Your task to perform on an android device: turn off improve location accuracy Image 0: 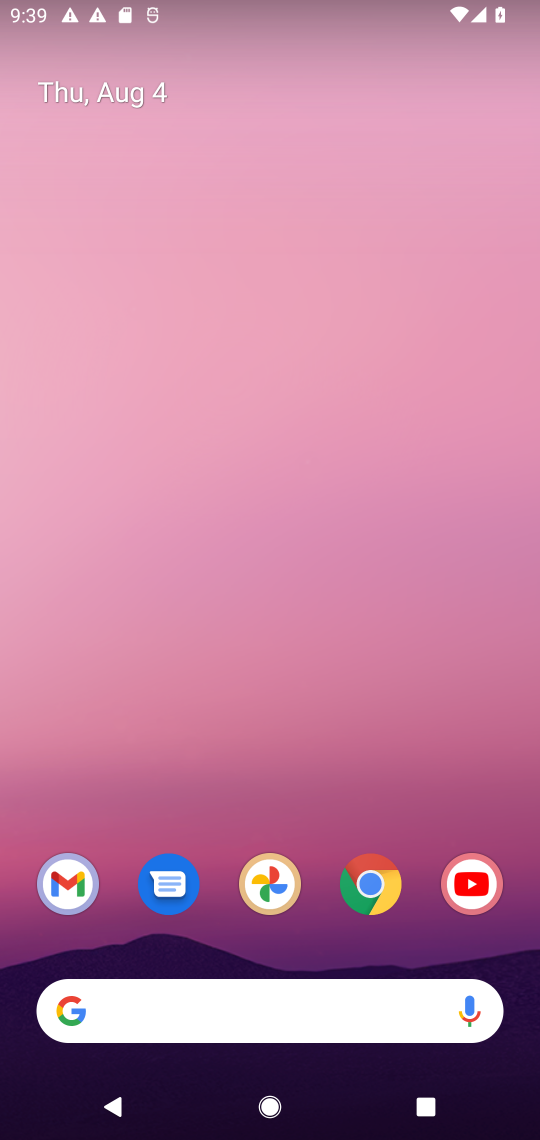
Step 0: drag from (242, 1059) to (116, 556)
Your task to perform on an android device: turn off improve location accuracy Image 1: 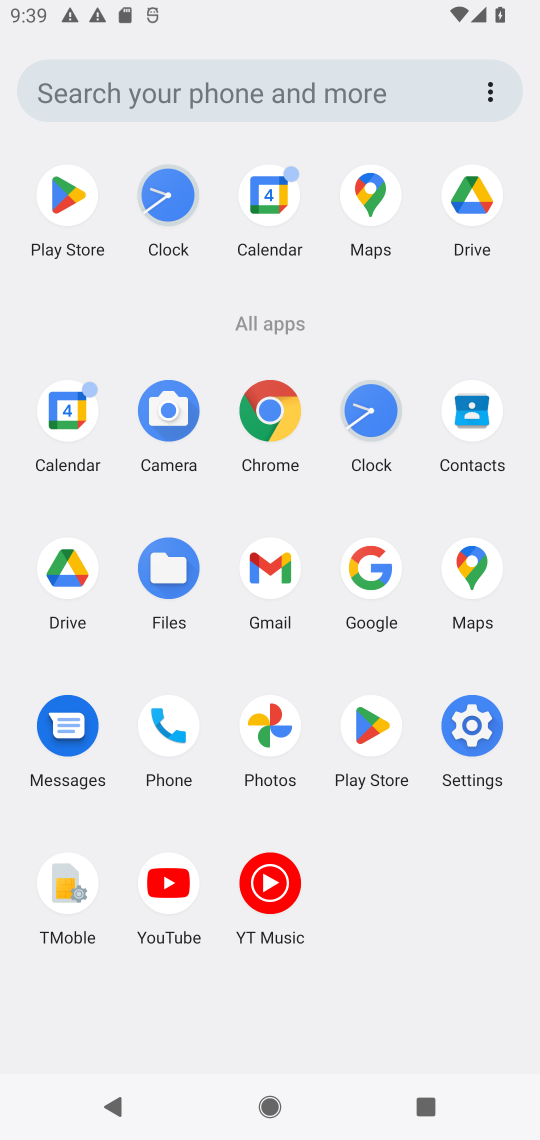
Step 1: click (461, 724)
Your task to perform on an android device: turn off improve location accuracy Image 2: 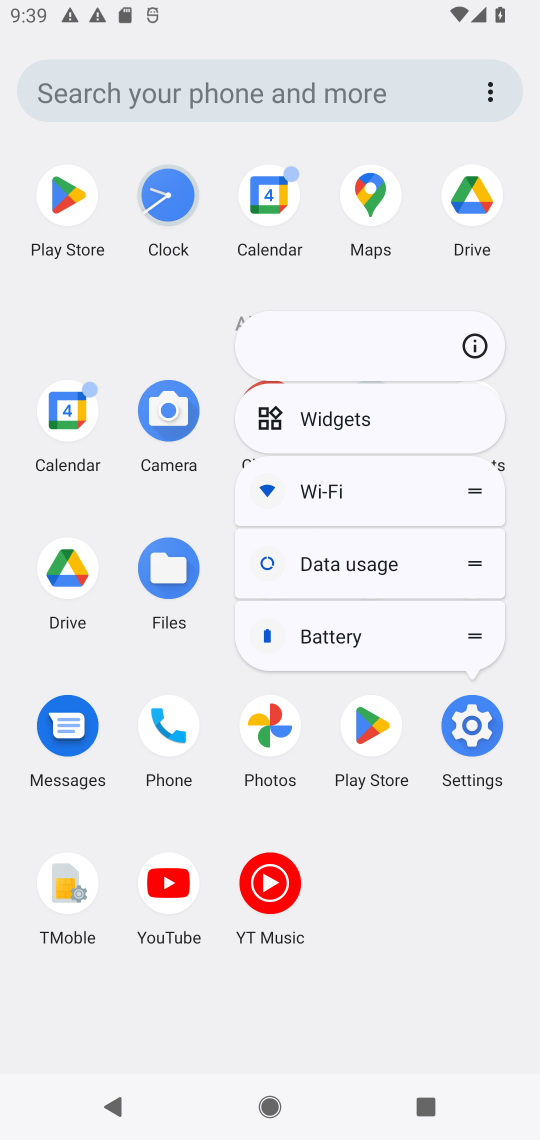
Step 2: click (459, 725)
Your task to perform on an android device: turn off improve location accuracy Image 3: 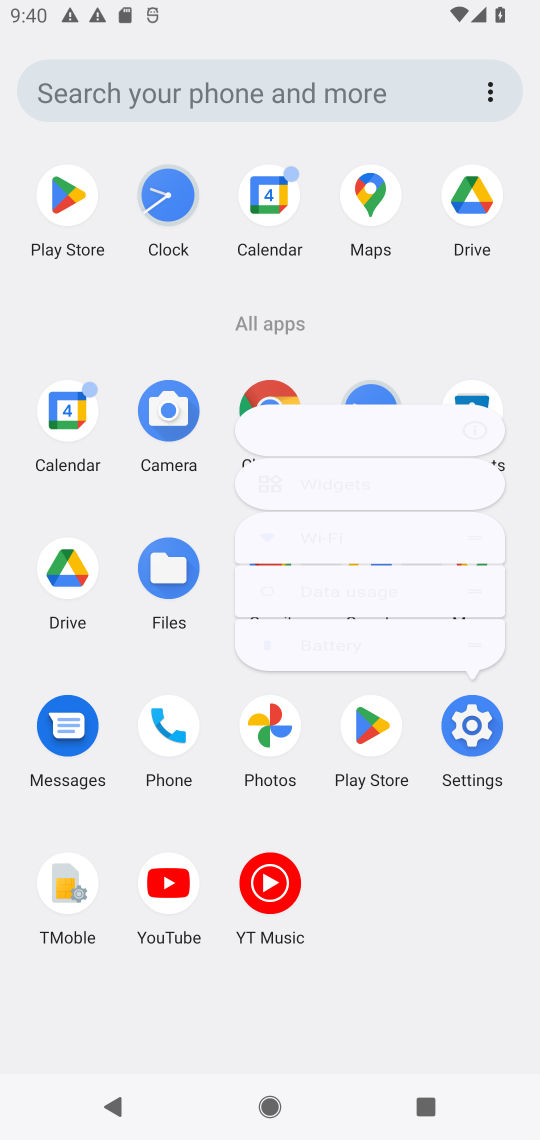
Step 3: click (464, 729)
Your task to perform on an android device: turn off improve location accuracy Image 4: 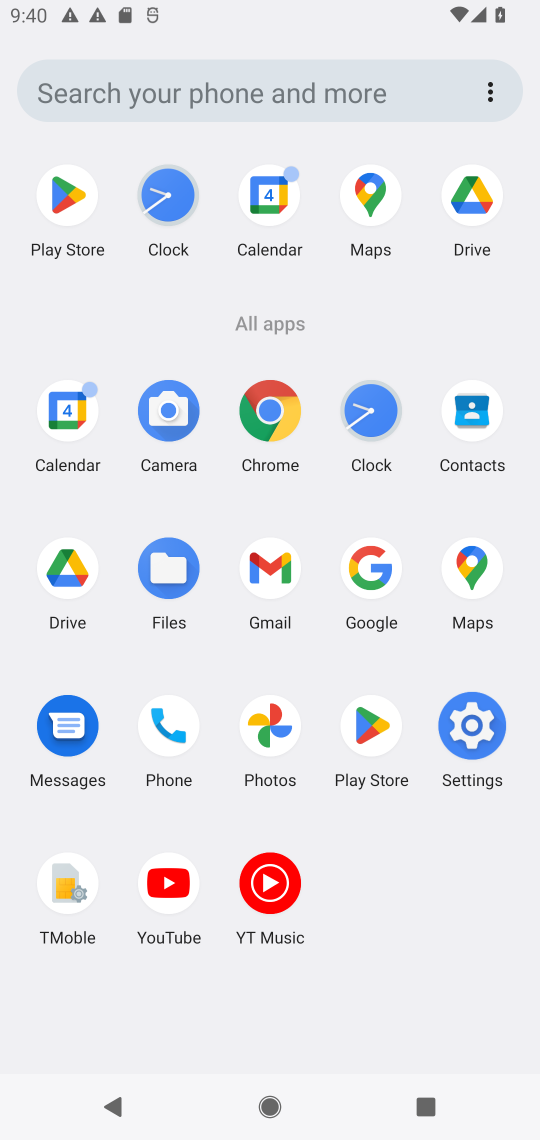
Step 4: click (469, 731)
Your task to perform on an android device: turn off improve location accuracy Image 5: 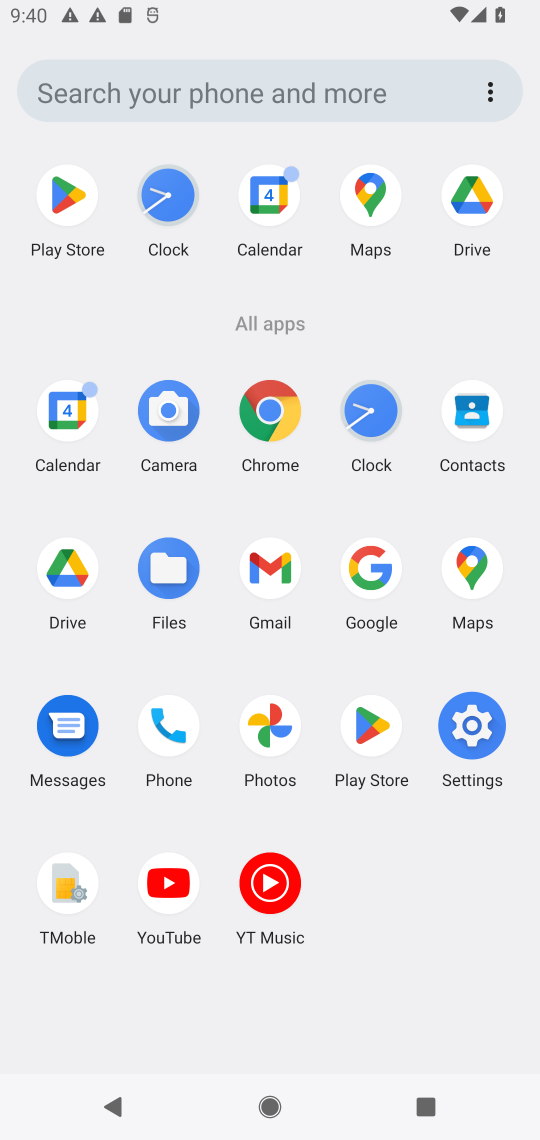
Step 5: click (470, 735)
Your task to perform on an android device: turn off improve location accuracy Image 6: 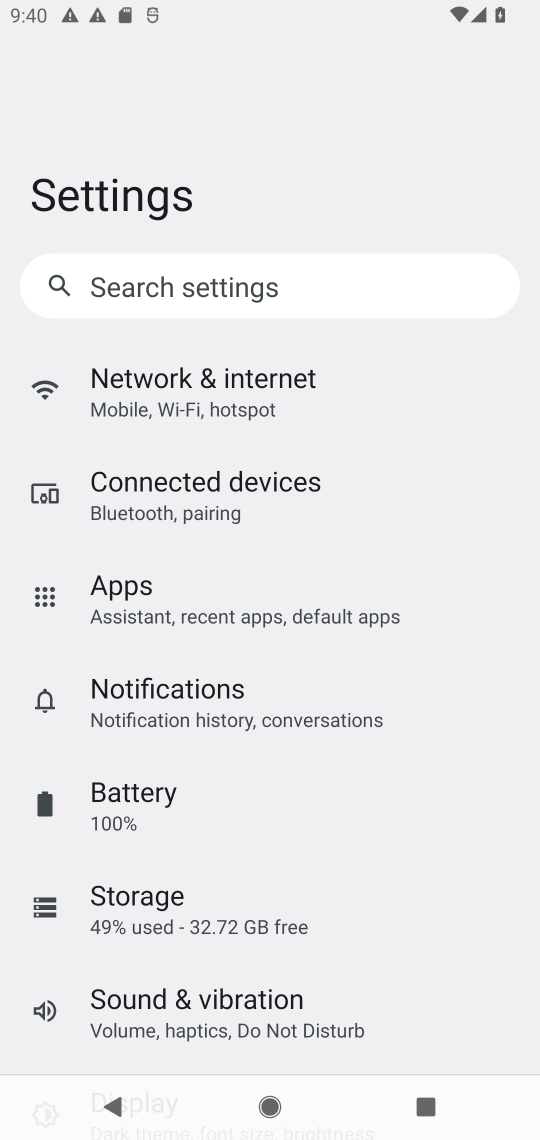
Step 6: click (461, 739)
Your task to perform on an android device: turn off improve location accuracy Image 7: 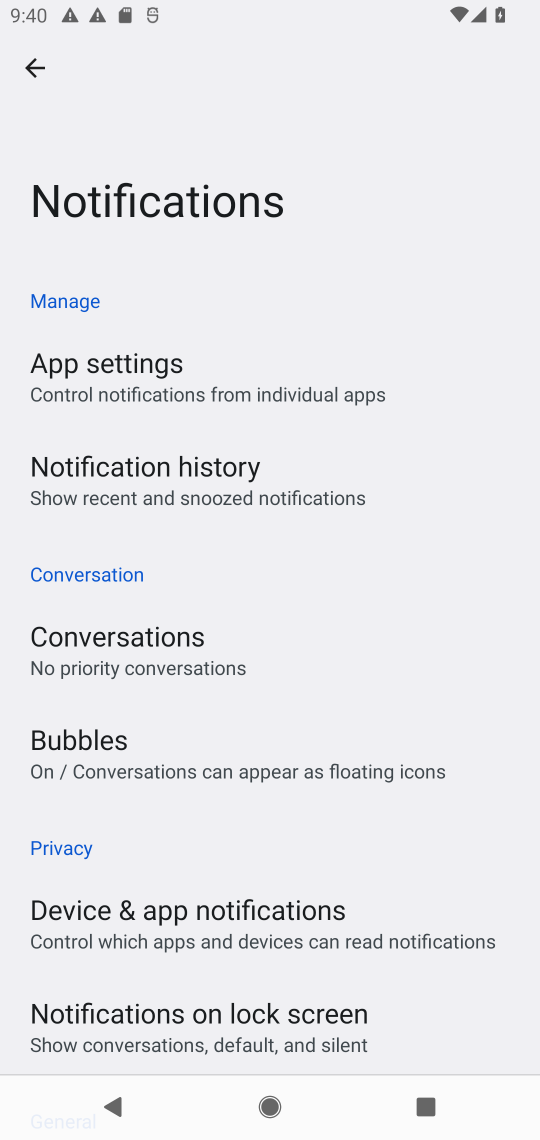
Step 7: click (45, 73)
Your task to perform on an android device: turn off improve location accuracy Image 8: 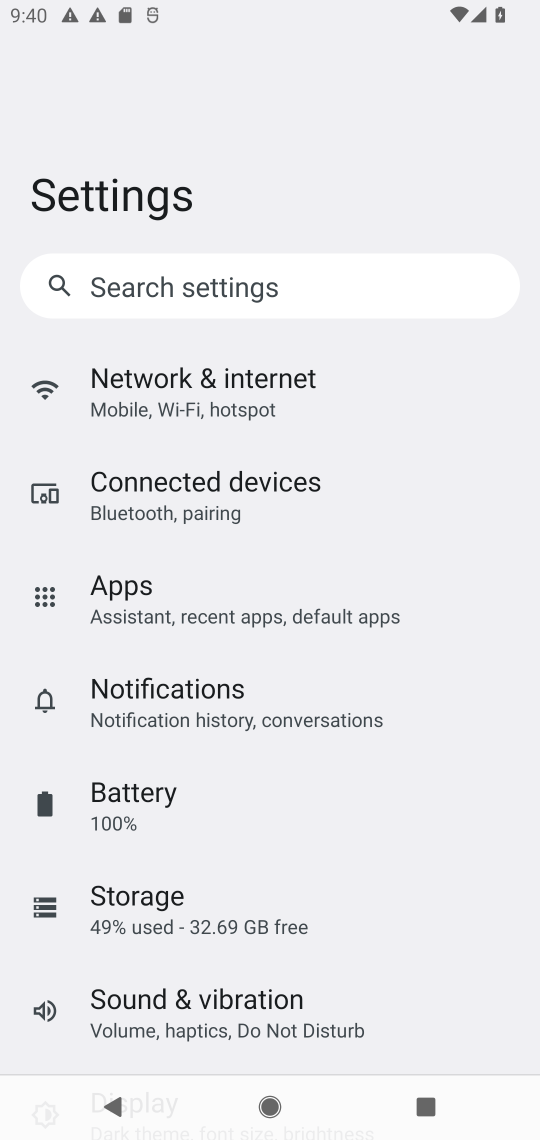
Step 8: drag from (202, 820) to (31, 360)
Your task to perform on an android device: turn off improve location accuracy Image 9: 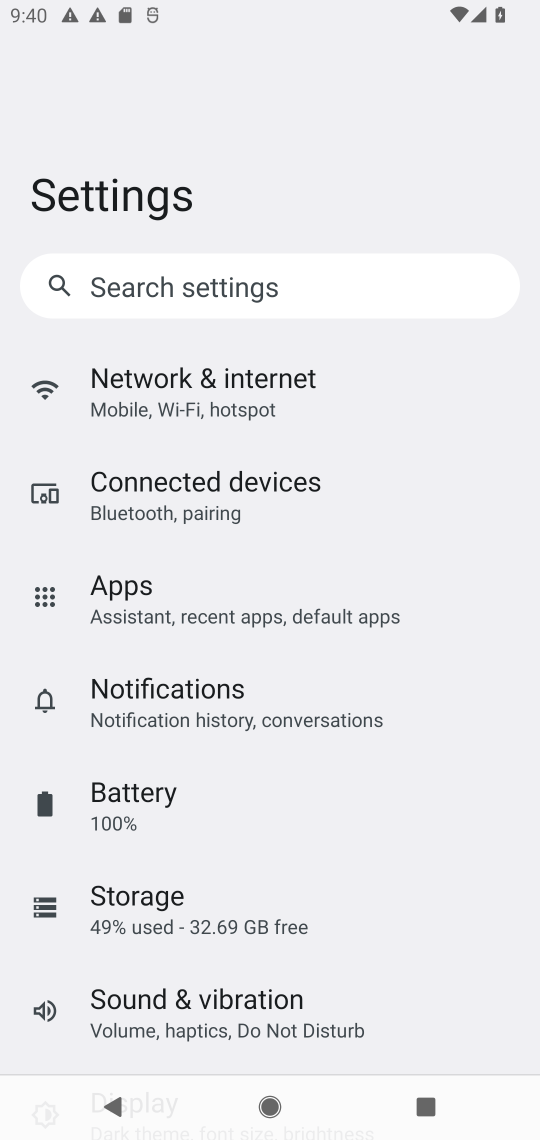
Step 9: drag from (179, 950) to (67, 428)
Your task to perform on an android device: turn off improve location accuracy Image 10: 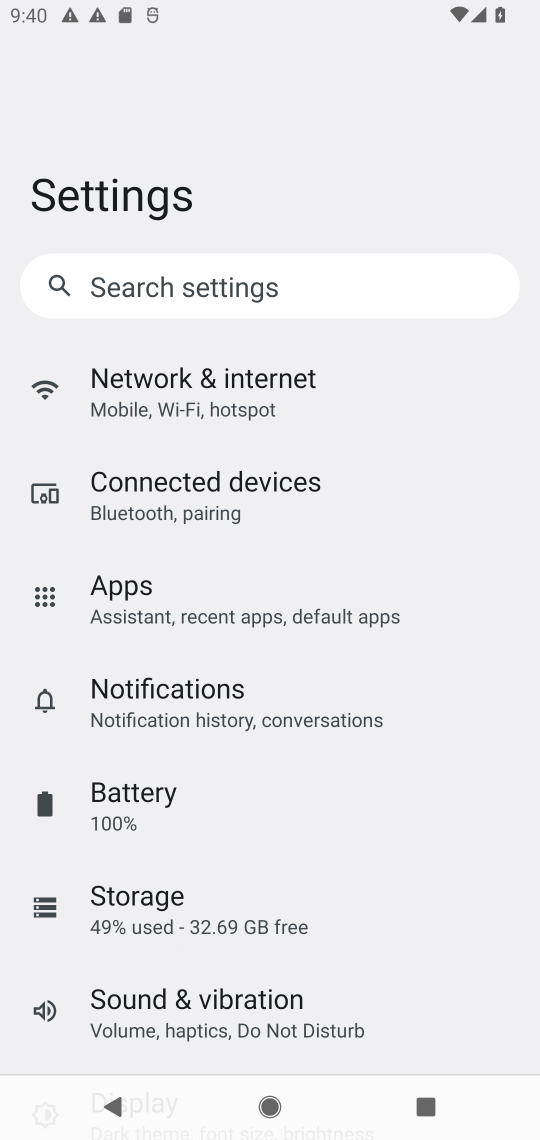
Step 10: drag from (206, 601) to (206, 494)
Your task to perform on an android device: turn off improve location accuracy Image 11: 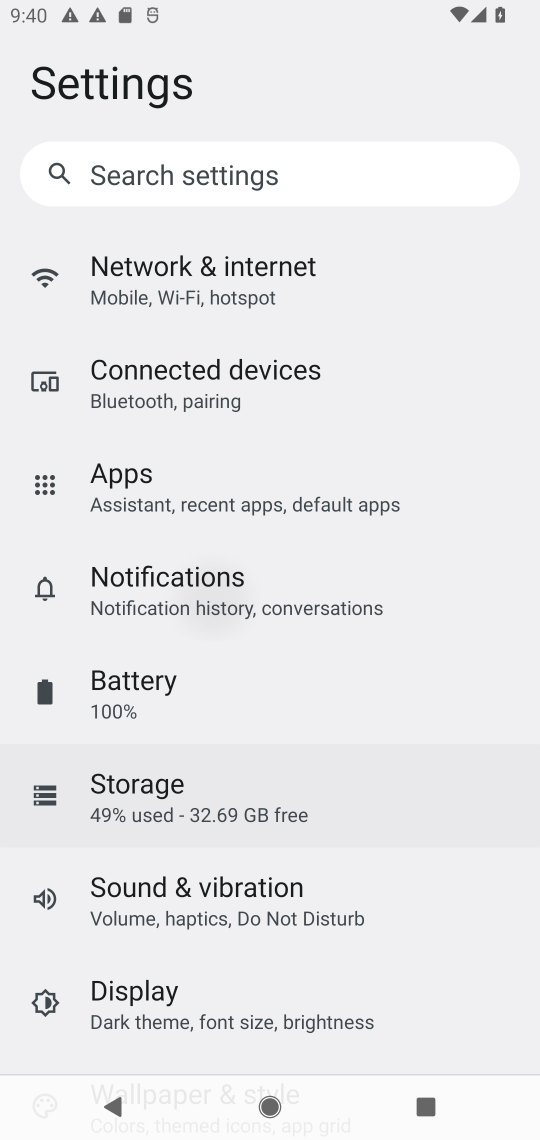
Step 11: drag from (217, 840) to (224, 707)
Your task to perform on an android device: turn off improve location accuracy Image 12: 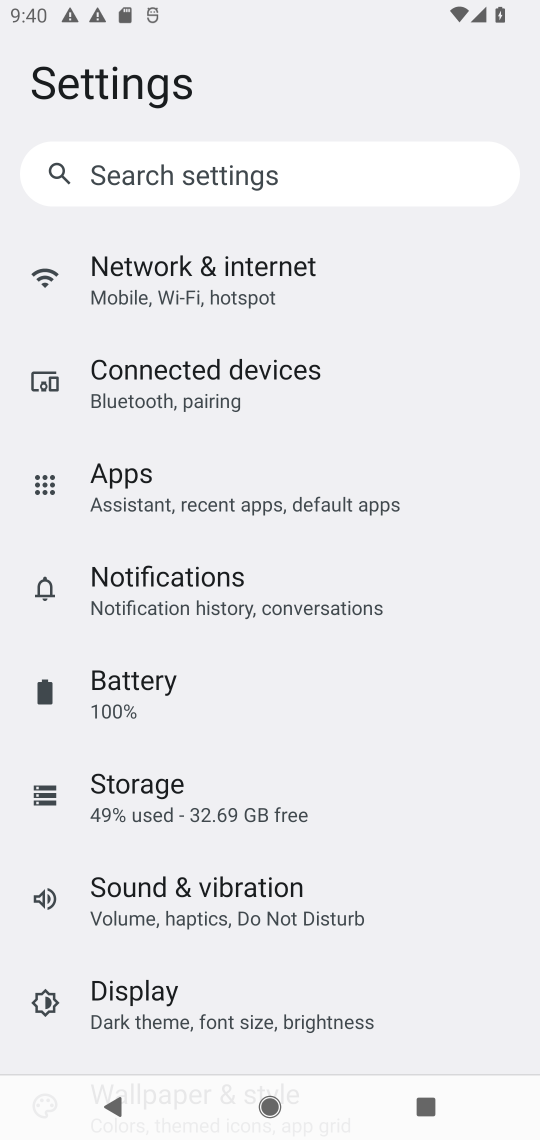
Step 12: drag from (178, 770) to (152, 577)
Your task to perform on an android device: turn off improve location accuracy Image 13: 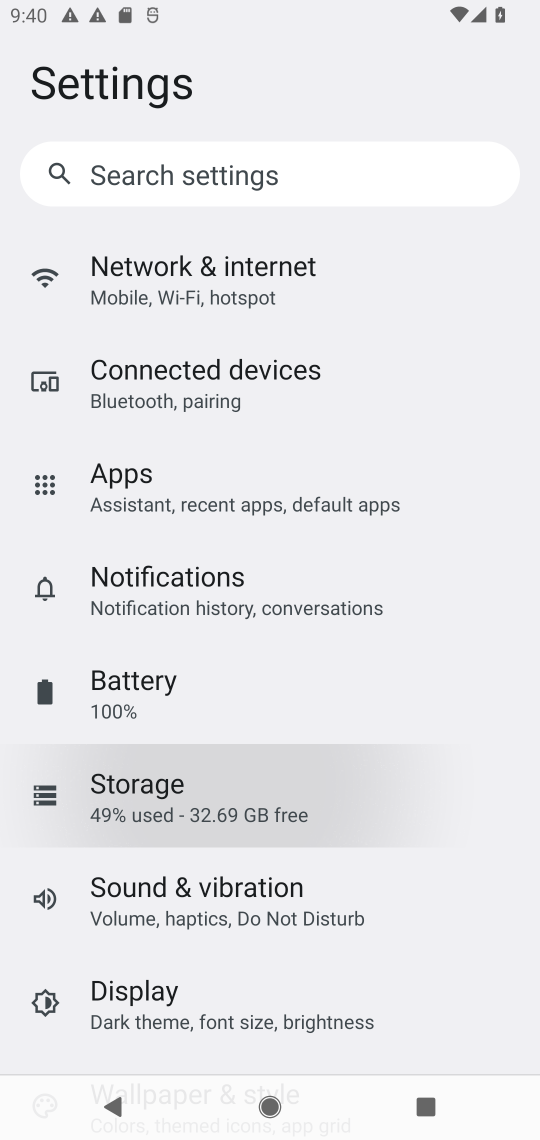
Step 13: drag from (219, 792) to (187, 380)
Your task to perform on an android device: turn off improve location accuracy Image 14: 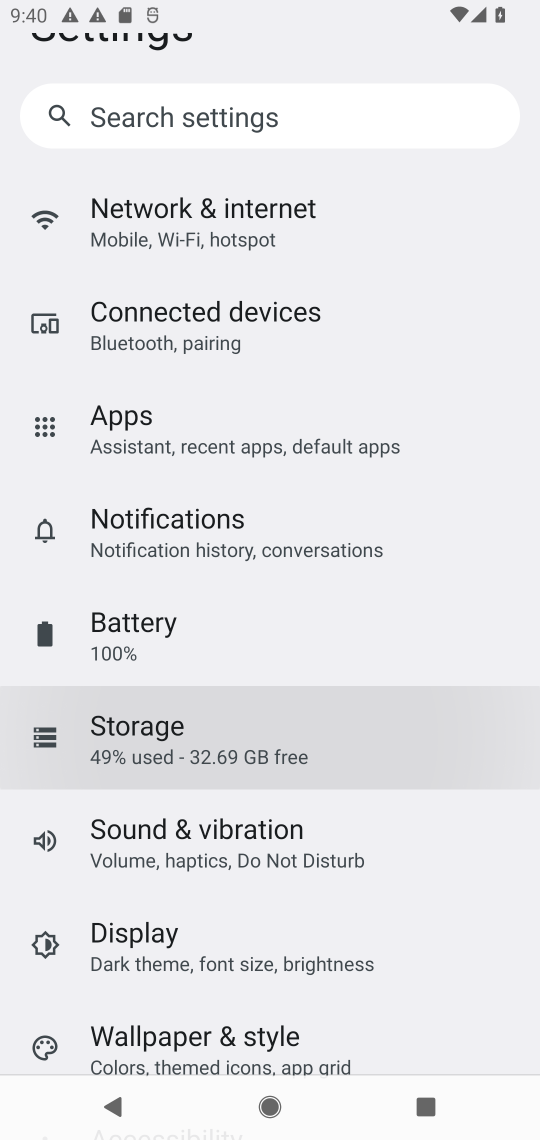
Step 14: drag from (215, 833) to (192, 405)
Your task to perform on an android device: turn off improve location accuracy Image 15: 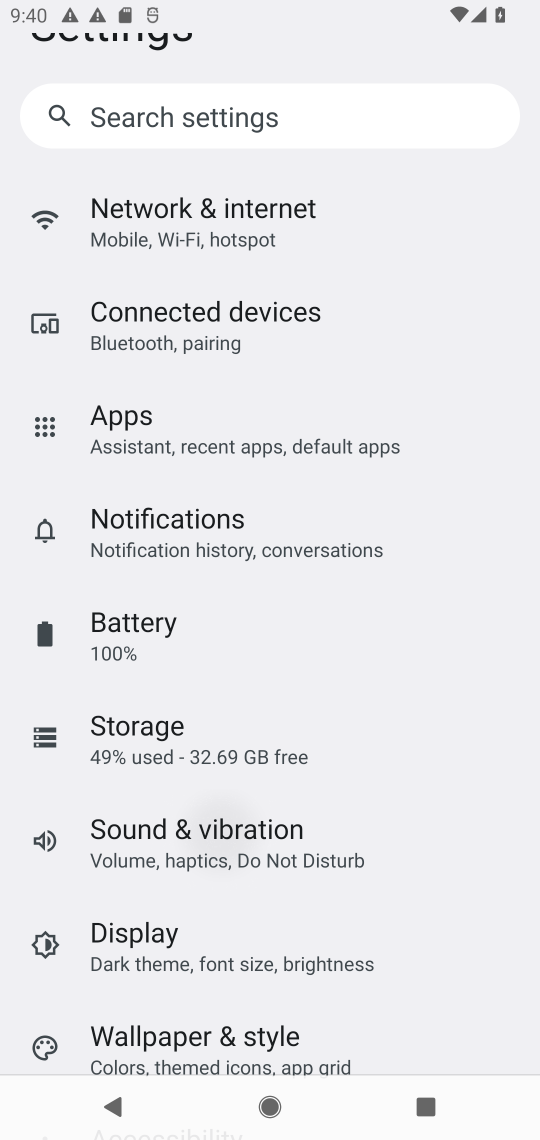
Step 15: drag from (253, 929) to (233, 535)
Your task to perform on an android device: turn off improve location accuracy Image 16: 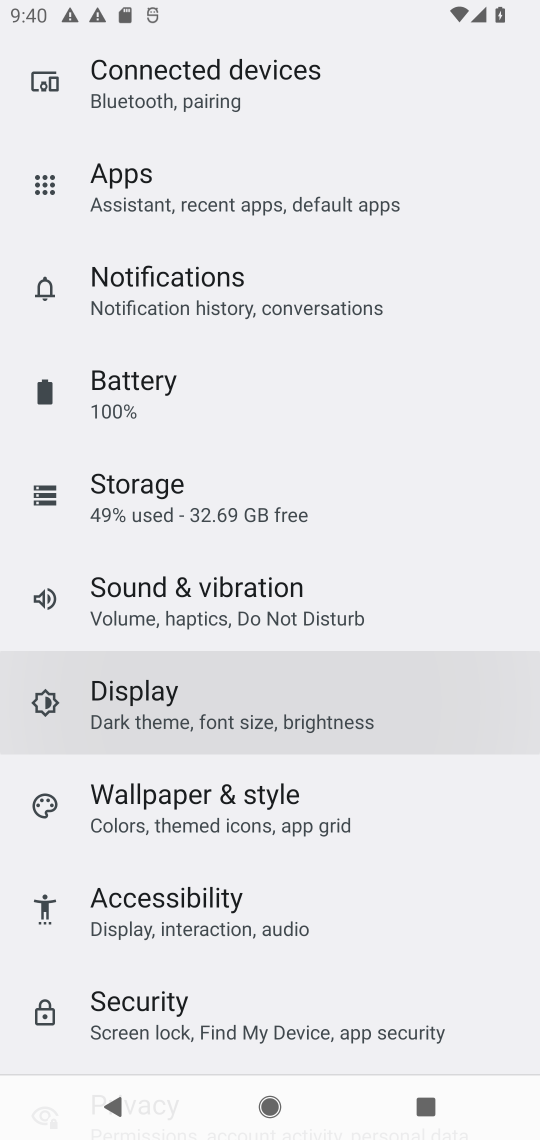
Step 16: drag from (248, 534) to (248, 352)
Your task to perform on an android device: turn off improve location accuracy Image 17: 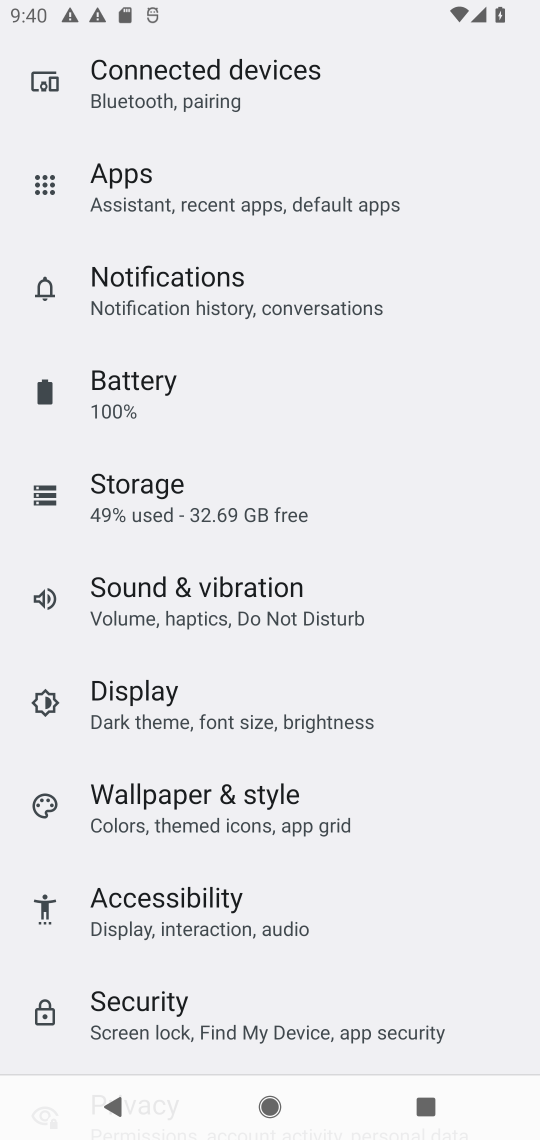
Step 17: drag from (176, 789) to (58, 291)
Your task to perform on an android device: turn off improve location accuracy Image 18: 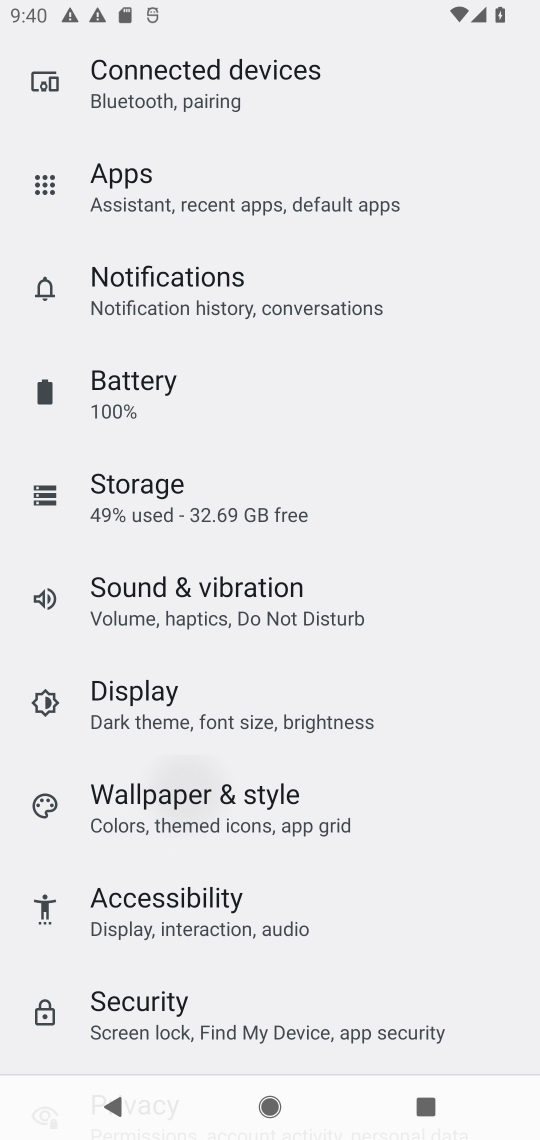
Step 18: drag from (192, 737) to (106, 366)
Your task to perform on an android device: turn off improve location accuracy Image 19: 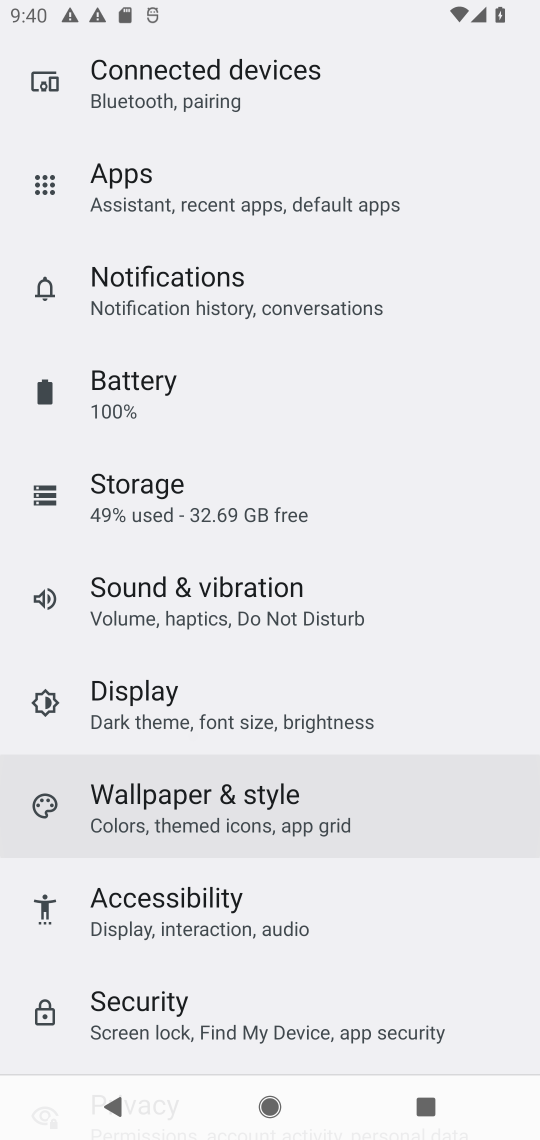
Step 19: drag from (208, 807) to (197, 287)
Your task to perform on an android device: turn off improve location accuracy Image 20: 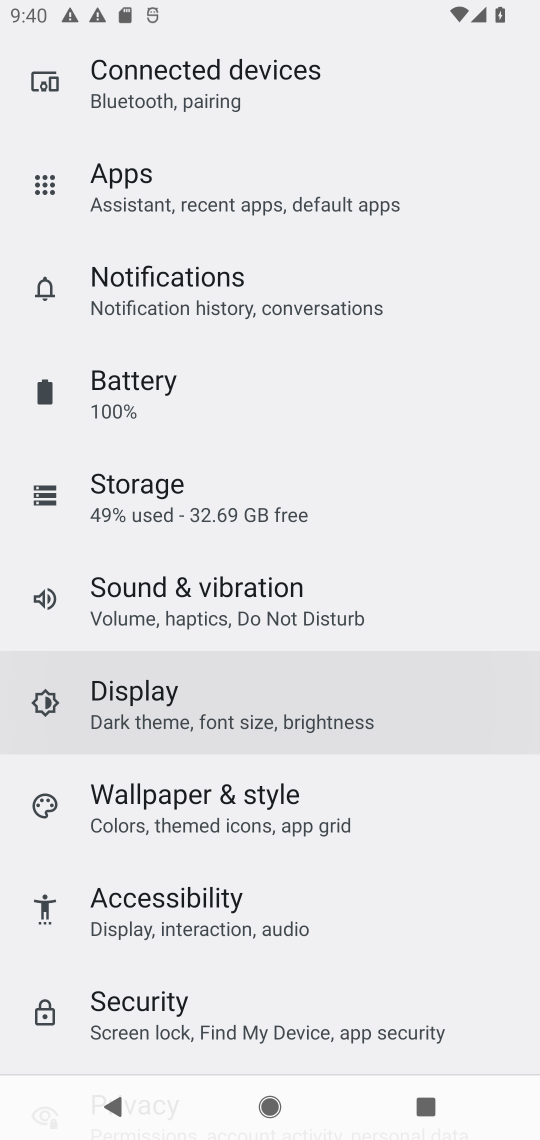
Step 20: drag from (238, 824) to (194, 248)
Your task to perform on an android device: turn off improve location accuracy Image 21: 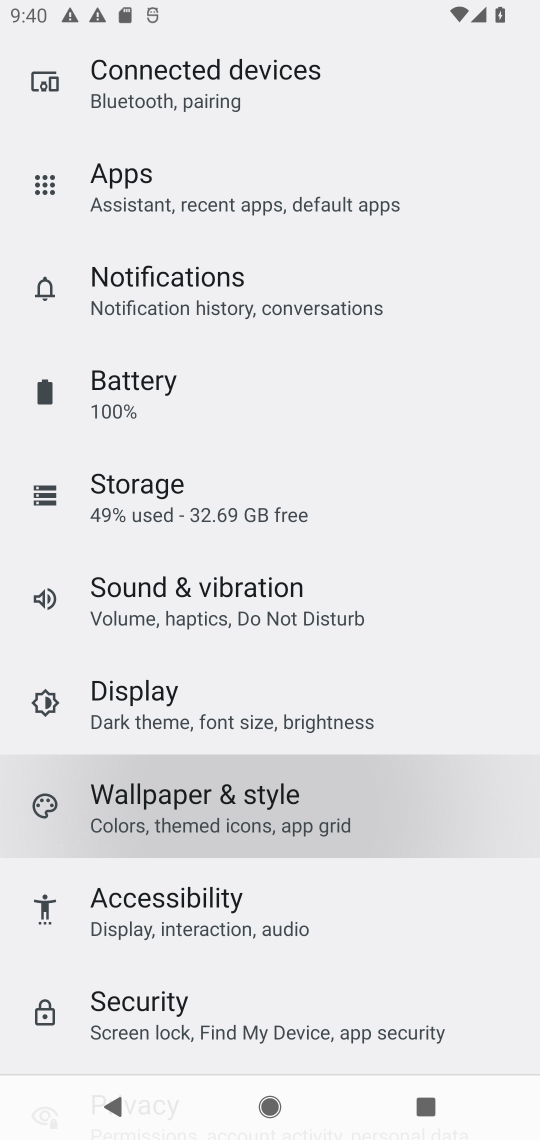
Step 21: drag from (206, 829) to (141, 306)
Your task to perform on an android device: turn off improve location accuracy Image 22: 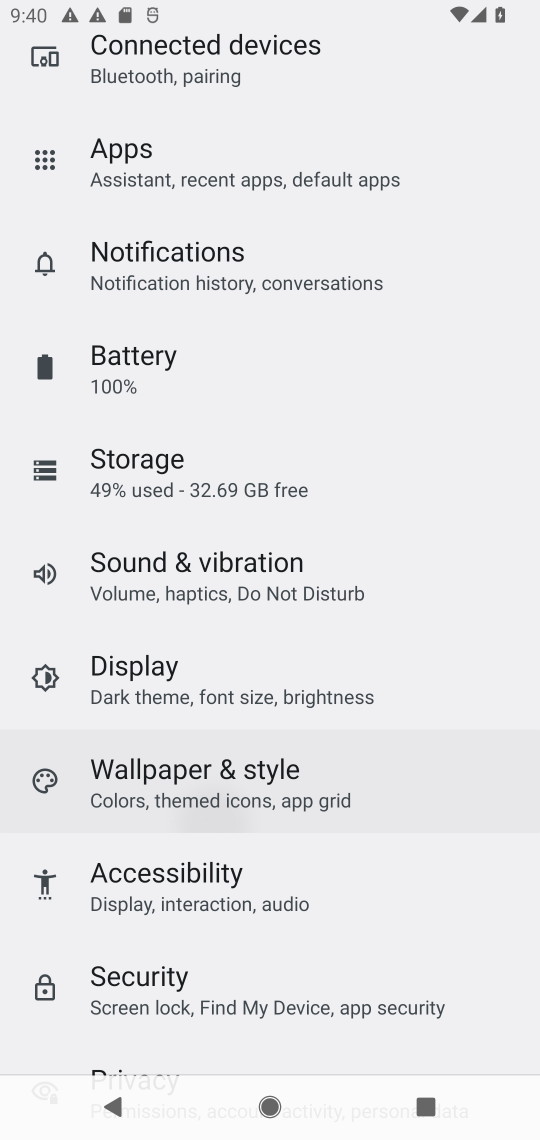
Step 22: drag from (186, 928) to (186, 448)
Your task to perform on an android device: turn off improve location accuracy Image 23: 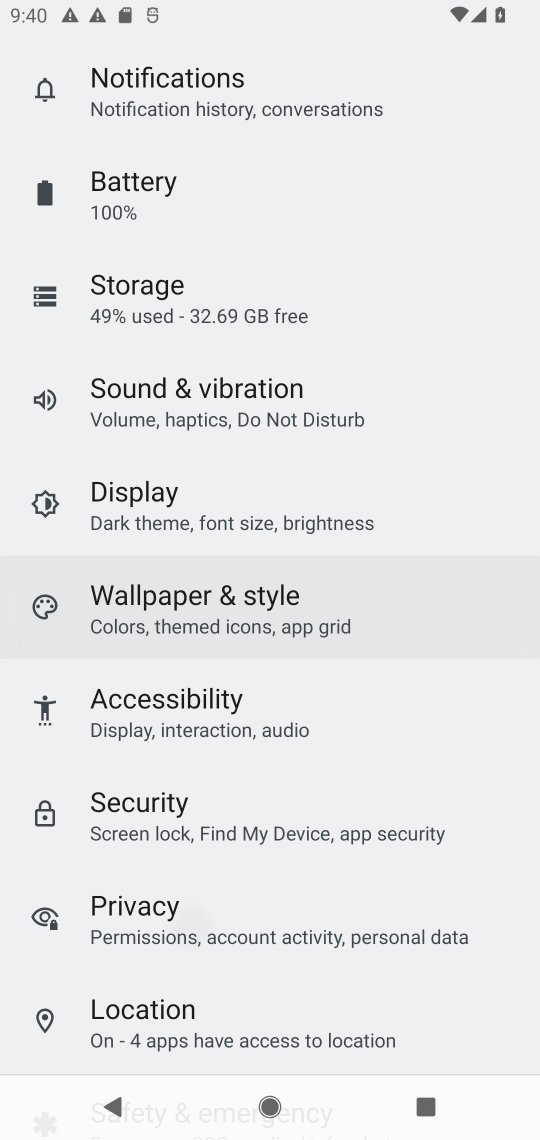
Step 23: drag from (275, 931) to (277, 424)
Your task to perform on an android device: turn off improve location accuracy Image 24: 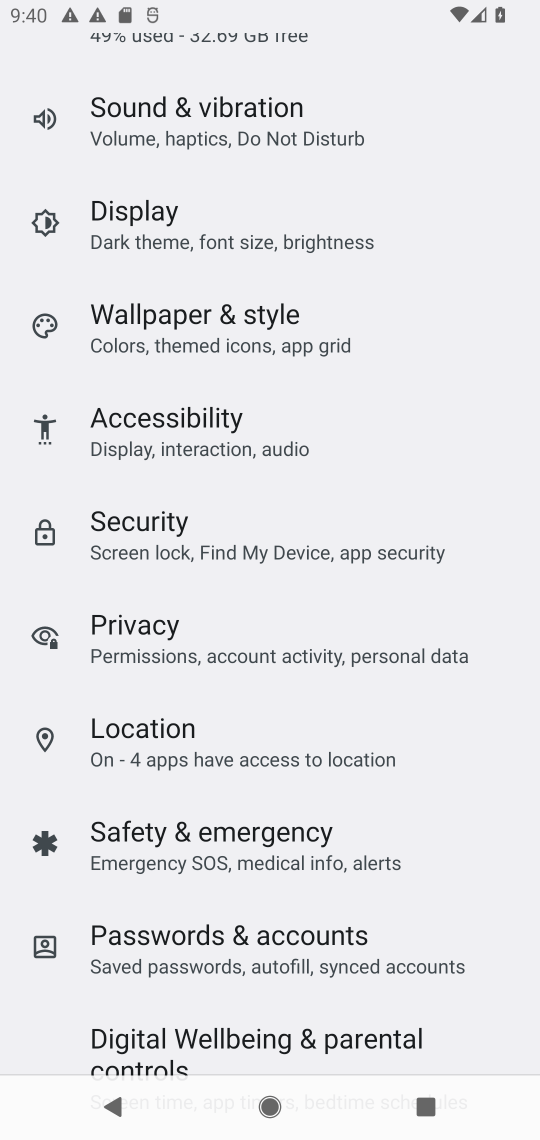
Step 24: click (167, 721)
Your task to perform on an android device: turn off improve location accuracy Image 25: 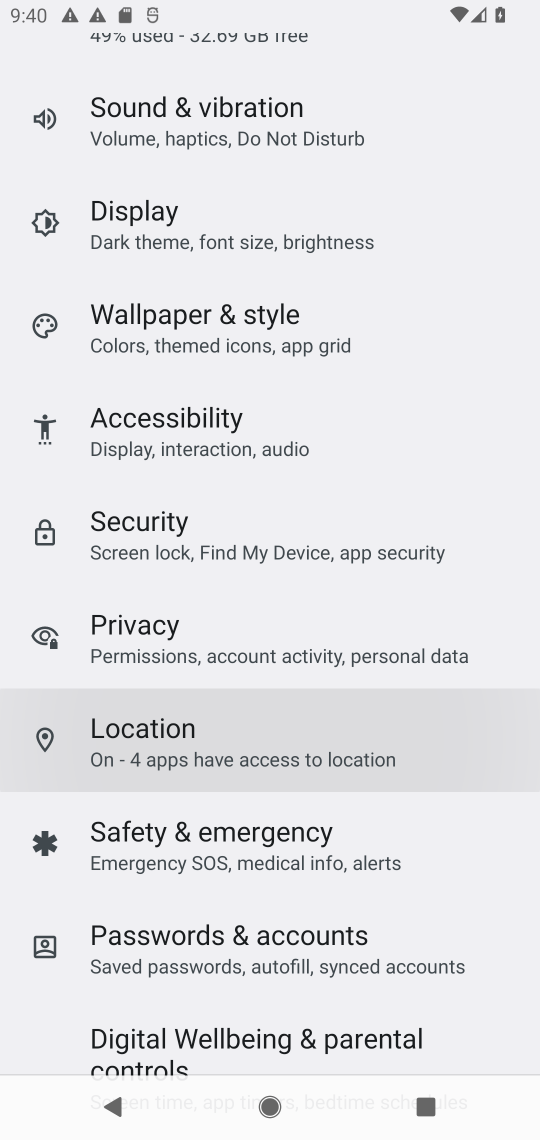
Step 25: click (178, 732)
Your task to perform on an android device: turn off improve location accuracy Image 26: 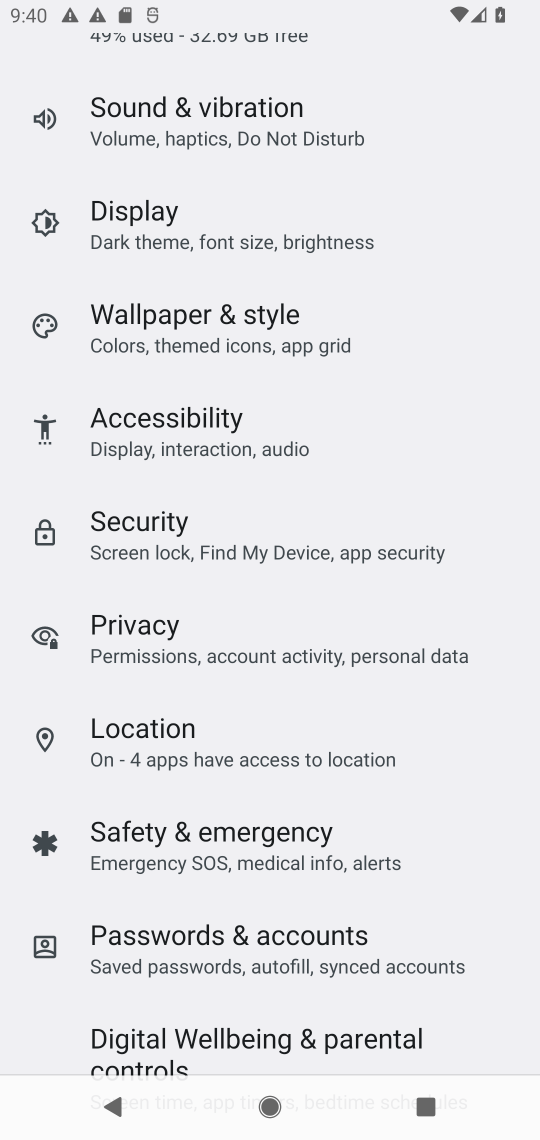
Step 26: click (178, 734)
Your task to perform on an android device: turn off improve location accuracy Image 27: 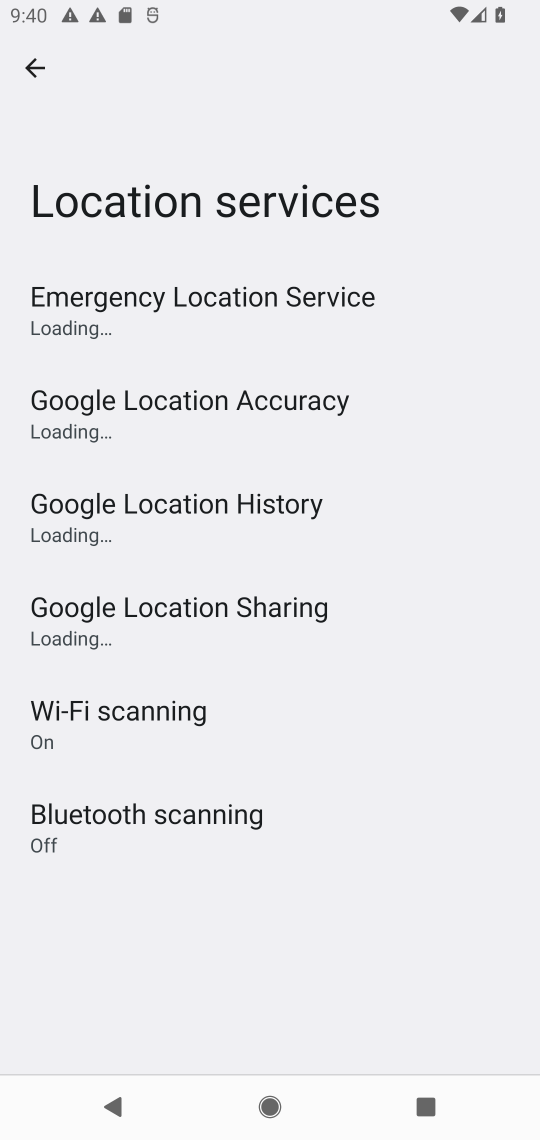
Step 27: click (170, 762)
Your task to perform on an android device: turn off improve location accuracy Image 28: 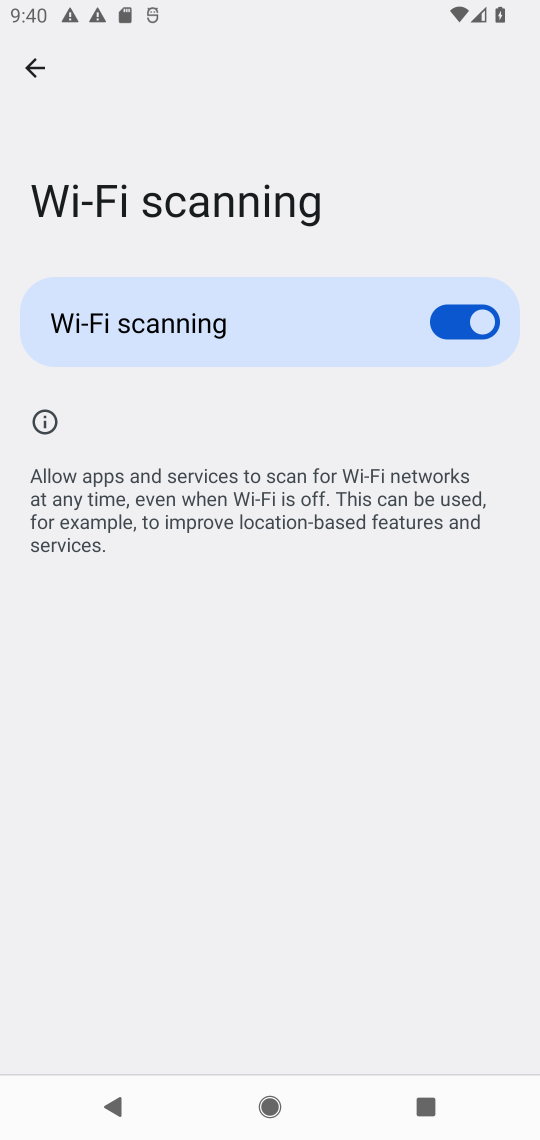
Step 28: click (35, 69)
Your task to perform on an android device: turn off improve location accuracy Image 29: 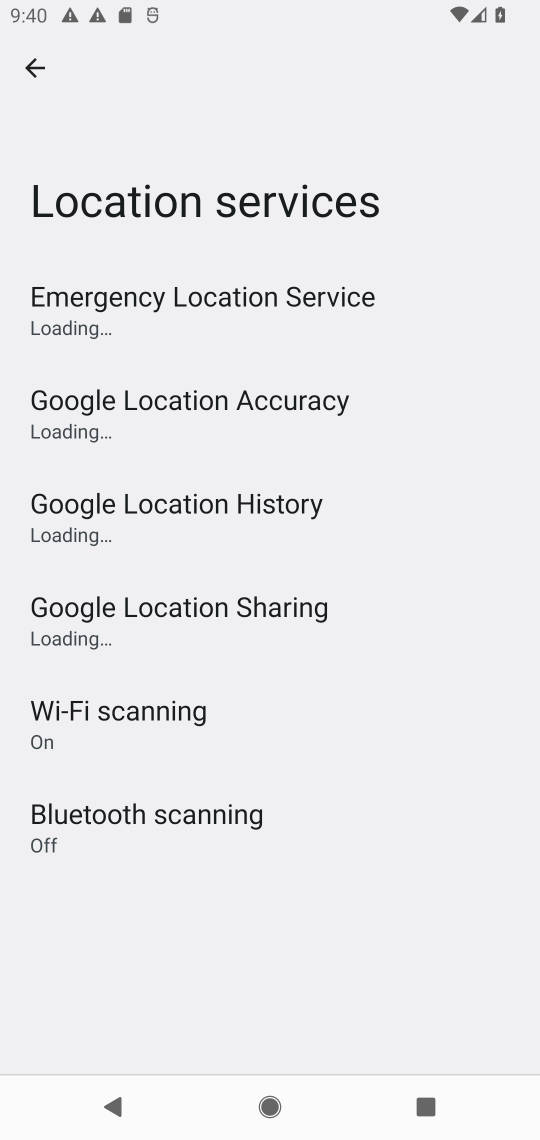
Step 29: click (212, 394)
Your task to perform on an android device: turn off improve location accuracy Image 30: 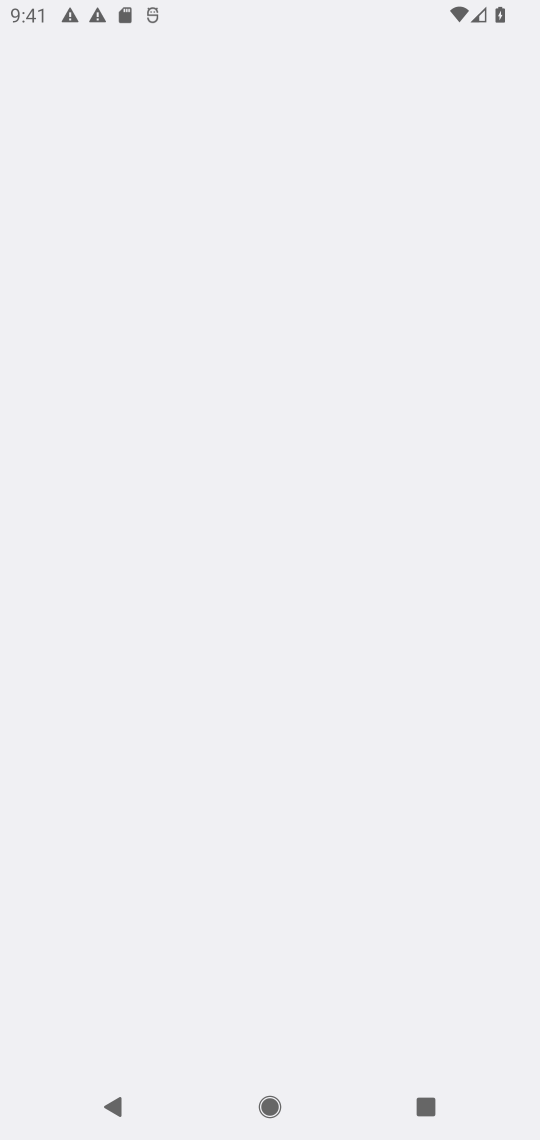
Step 30: task complete